Your task to perform on an android device: Open my contact list Image 0: 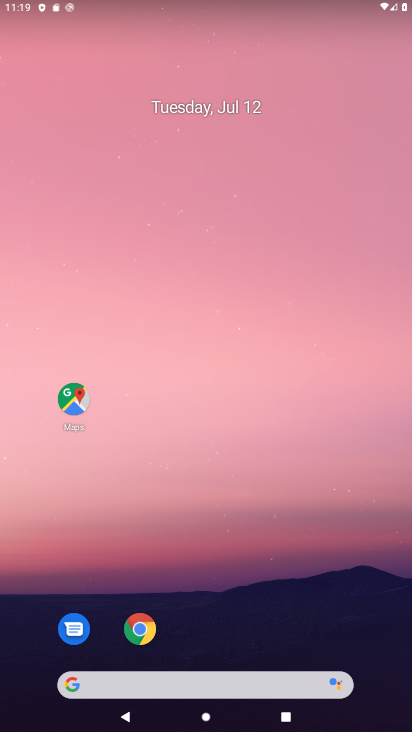
Step 0: drag from (220, 556) to (203, 177)
Your task to perform on an android device: Open my contact list Image 1: 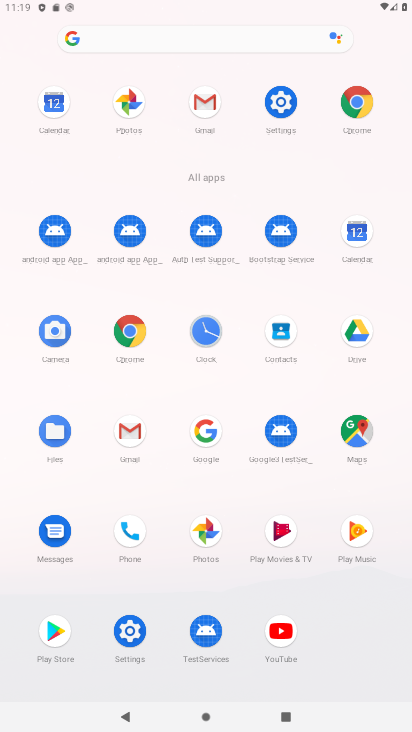
Step 1: click (272, 320)
Your task to perform on an android device: Open my contact list Image 2: 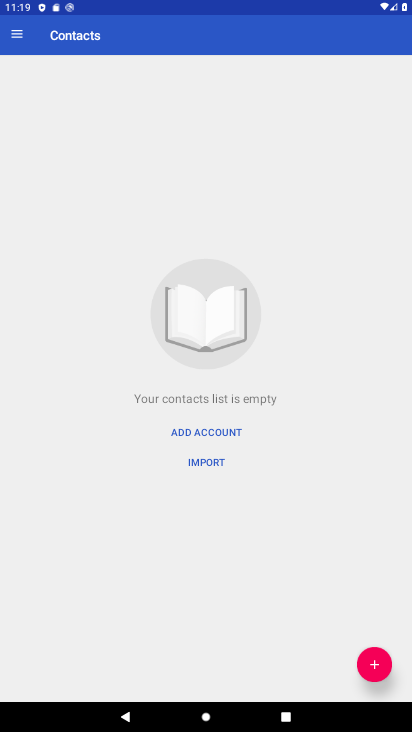
Step 2: task complete